Your task to perform on an android device: open sync settings in chrome Image 0: 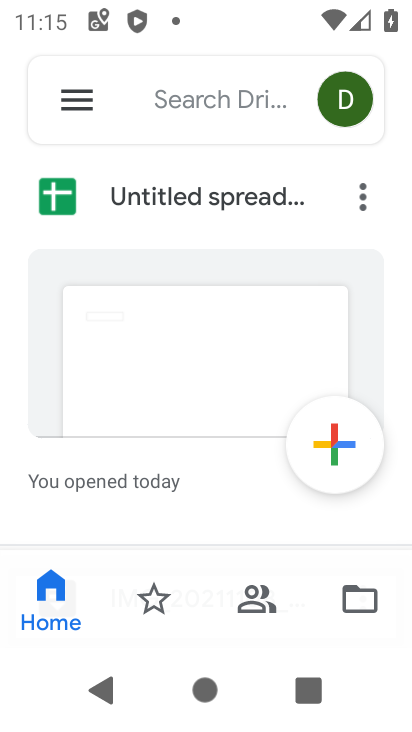
Step 0: press home button
Your task to perform on an android device: open sync settings in chrome Image 1: 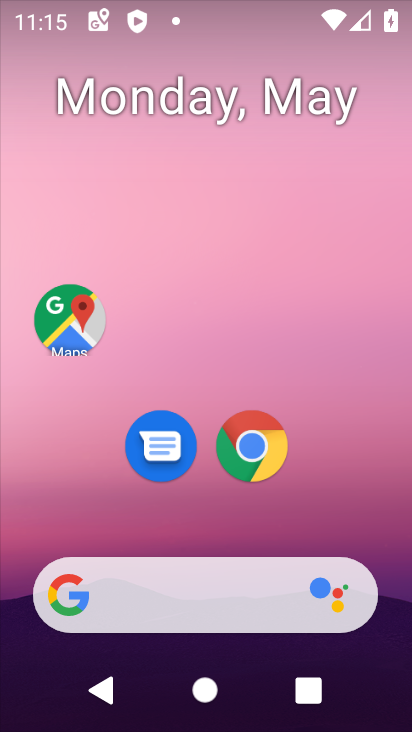
Step 1: click (271, 451)
Your task to perform on an android device: open sync settings in chrome Image 2: 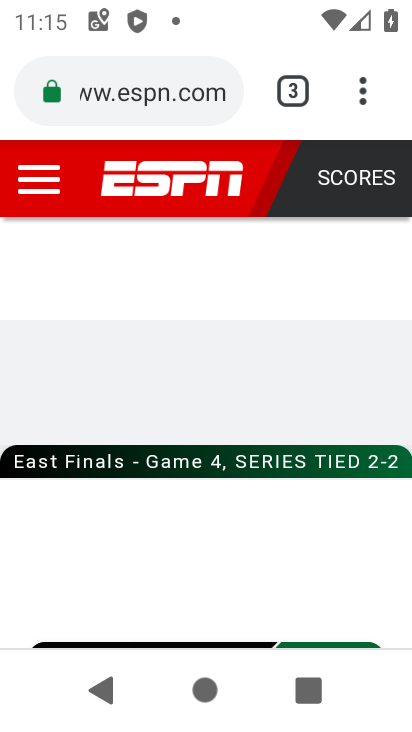
Step 2: drag from (364, 110) to (95, 470)
Your task to perform on an android device: open sync settings in chrome Image 3: 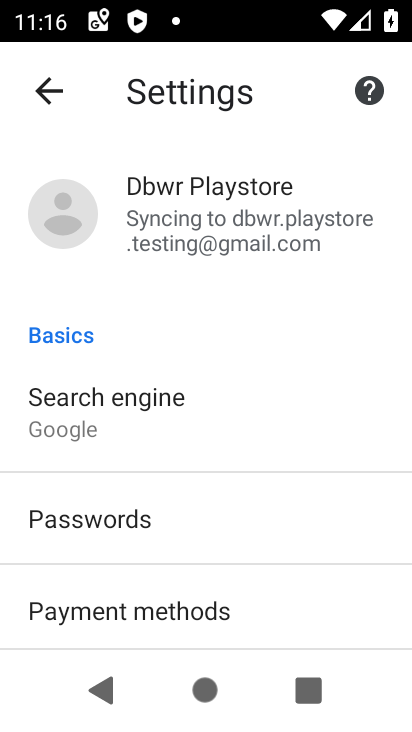
Step 3: drag from (113, 584) to (122, 20)
Your task to perform on an android device: open sync settings in chrome Image 4: 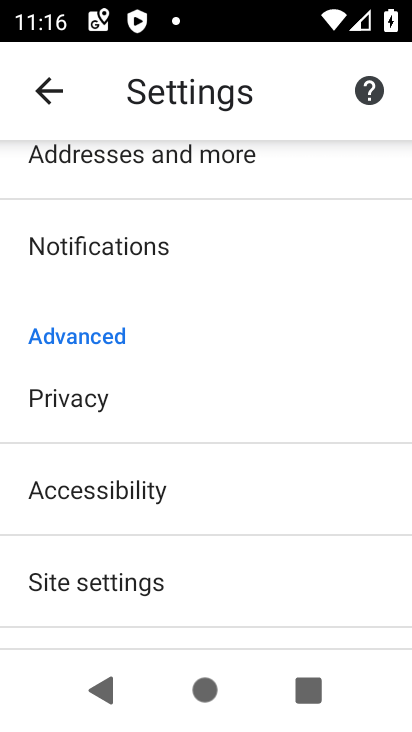
Step 4: drag from (112, 522) to (163, 211)
Your task to perform on an android device: open sync settings in chrome Image 5: 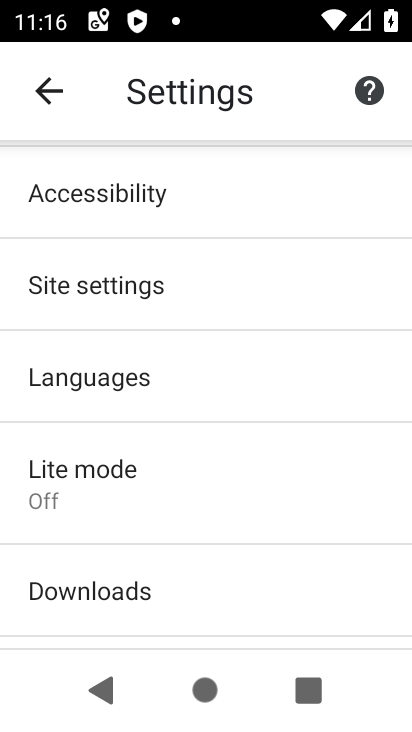
Step 5: click (127, 291)
Your task to perform on an android device: open sync settings in chrome Image 6: 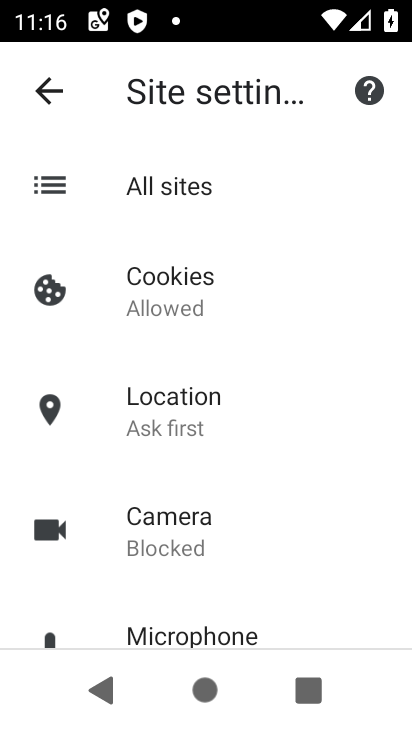
Step 6: drag from (179, 530) to (205, 127)
Your task to perform on an android device: open sync settings in chrome Image 7: 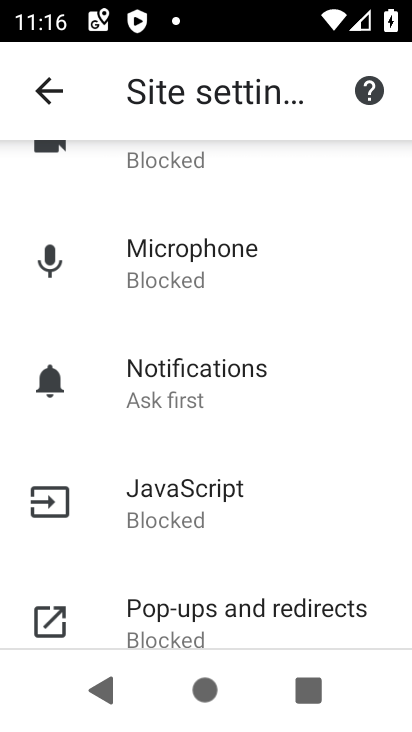
Step 7: drag from (191, 559) to (191, 228)
Your task to perform on an android device: open sync settings in chrome Image 8: 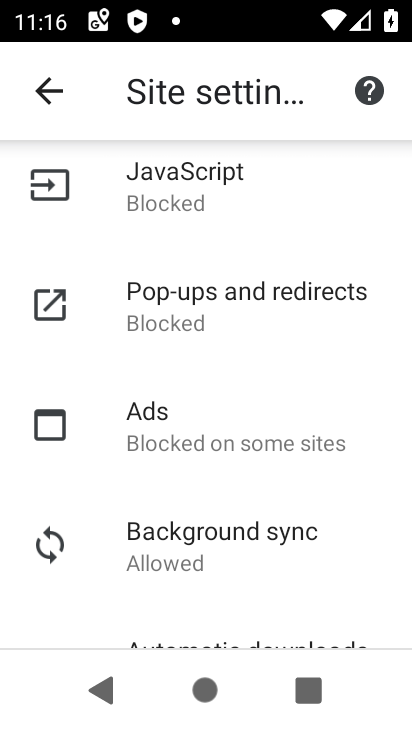
Step 8: click (185, 564)
Your task to perform on an android device: open sync settings in chrome Image 9: 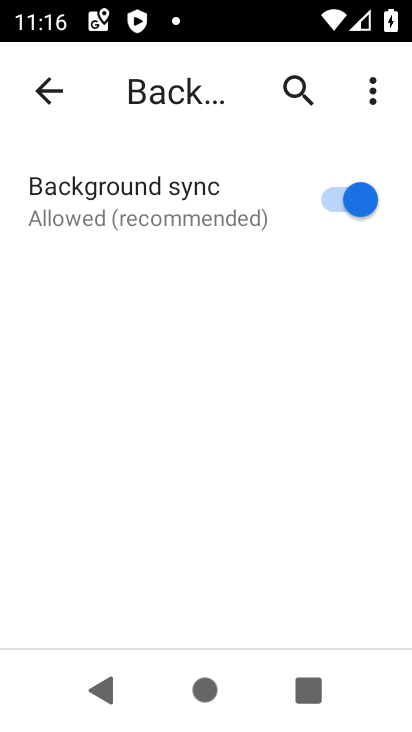
Step 9: task complete